Your task to perform on an android device: When is my next meeting? Image 0: 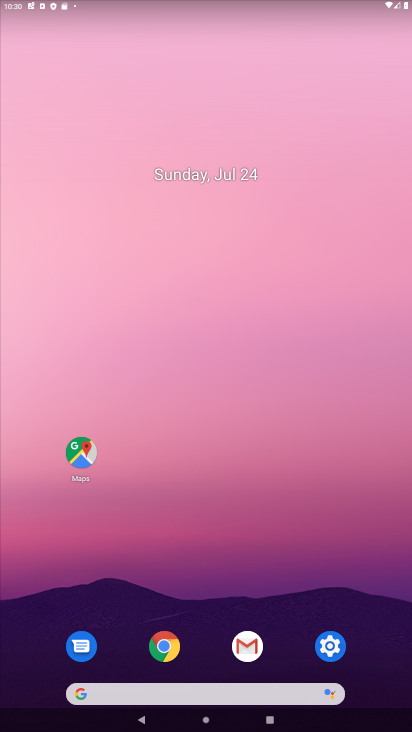
Step 0: drag from (276, 698) to (248, 233)
Your task to perform on an android device: When is my next meeting? Image 1: 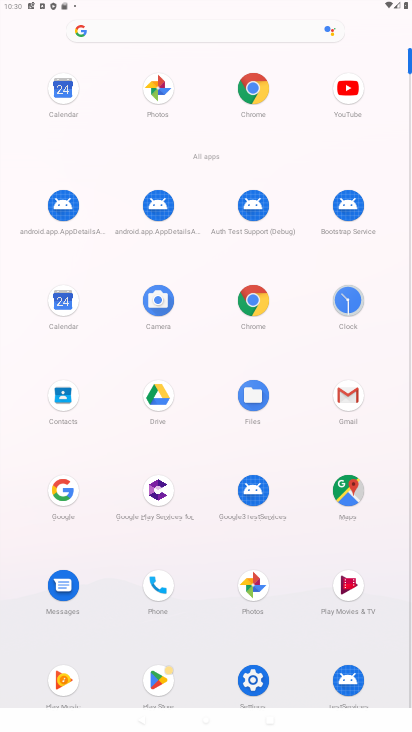
Step 1: click (59, 308)
Your task to perform on an android device: When is my next meeting? Image 2: 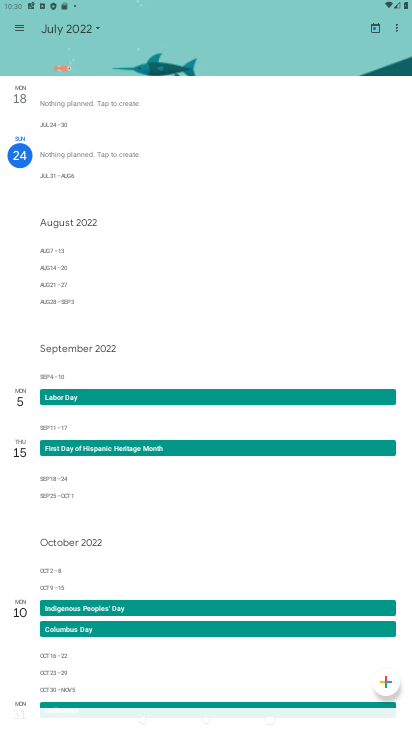
Step 2: task complete